Your task to perform on an android device: Open Maps and search for coffee Image 0: 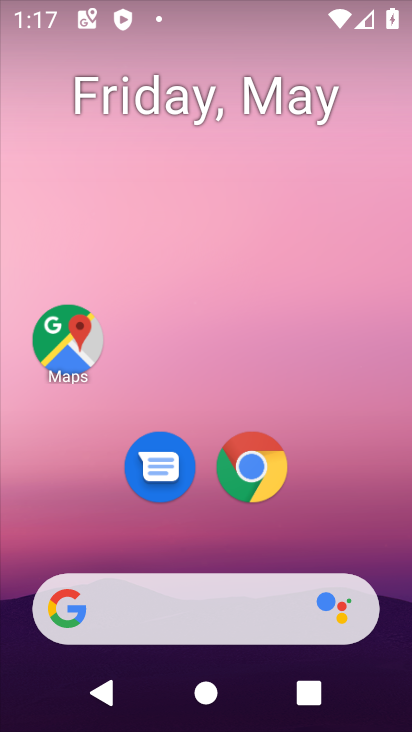
Step 0: click (62, 343)
Your task to perform on an android device: Open Maps and search for coffee Image 1: 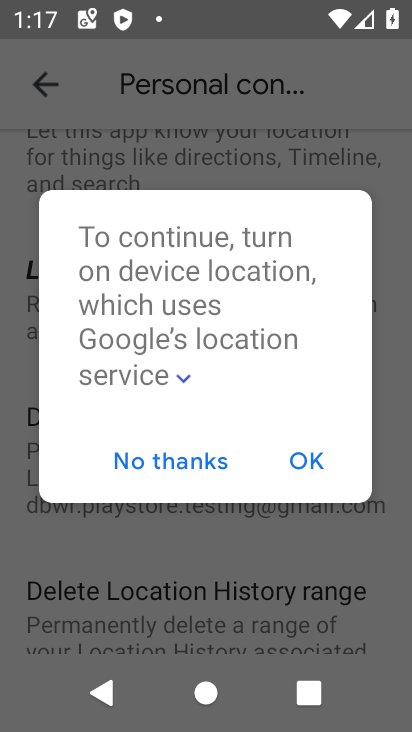
Step 1: click (159, 457)
Your task to perform on an android device: Open Maps and search for coffee Image 2: 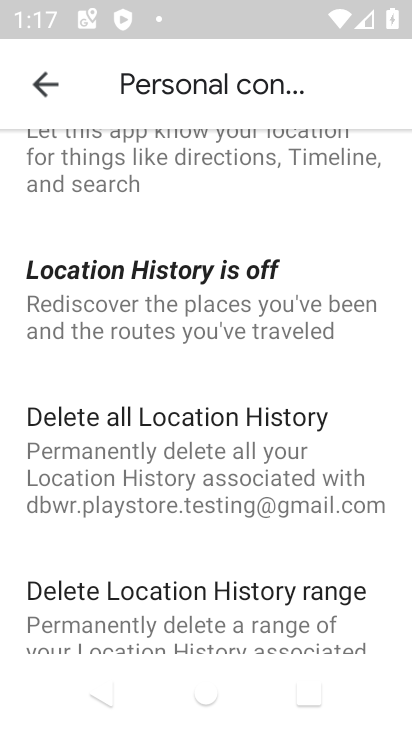
Step 2: press back button
Your task to perform on an android device: Open Maps and search for coffee Image 3: 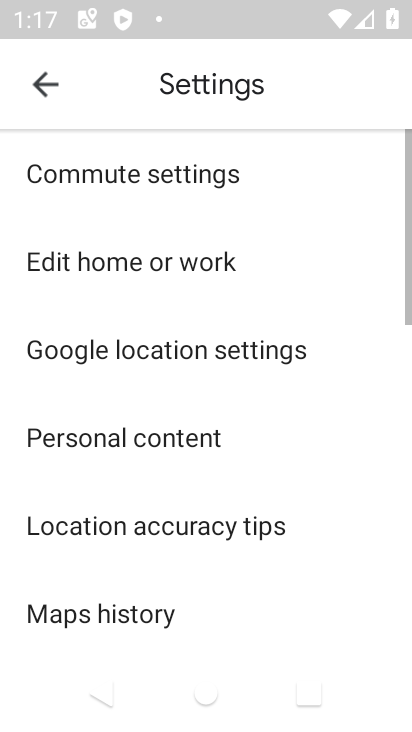
Step 3: press back button
Your task to perform on an android device: Open Maps and search for coffee Image 4: 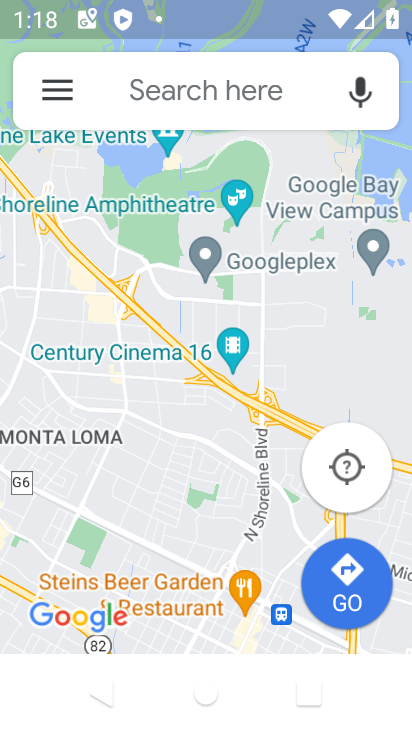
Step 4: click (174, 91)
Your task to perform on an android device: Open Maps and search for coffee Image 5: 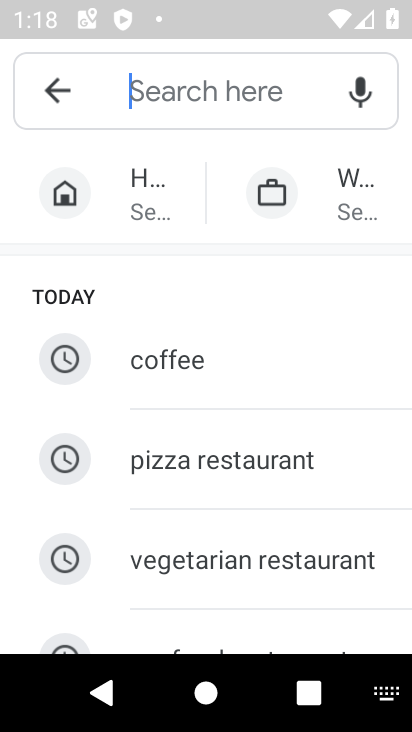
Step 5: type "coffee"
Your task to perform on an android device: Open Maps and search for coffee Image 6: 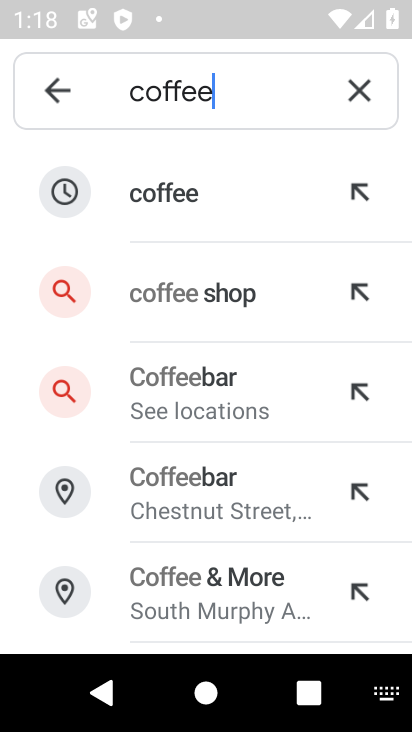
Step 6: click (162, 195)
Your task to perform on an android device: Open Maps and search for coffee Image 7: 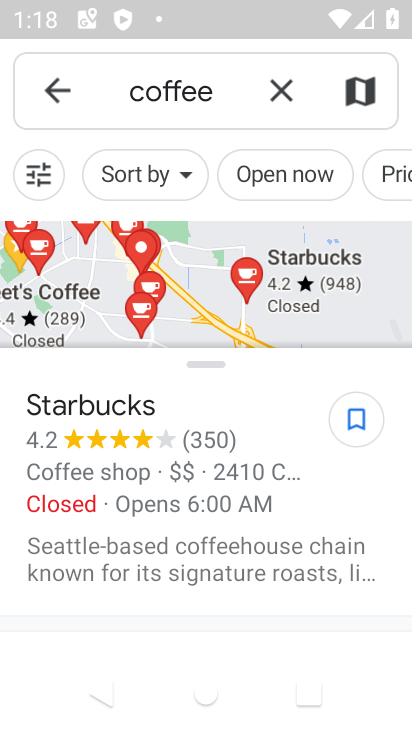
Step 7: task complete